Your task to perform on an android device: find which apps use the phone's location Image 0: 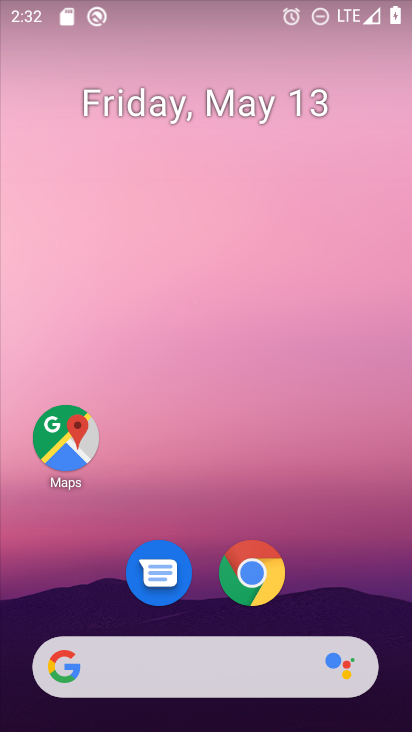
Step 0: drag from (221, 724) to (337, 10)
Your task to perform on an android device: find which apps use the phone's location Image 1: 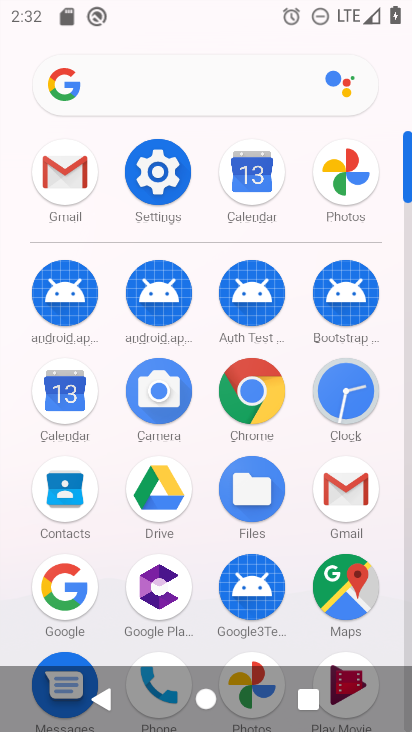
Step 1: click (181, 153)
Your task to perform on an android device: find which apps use the phone's location Image 2: 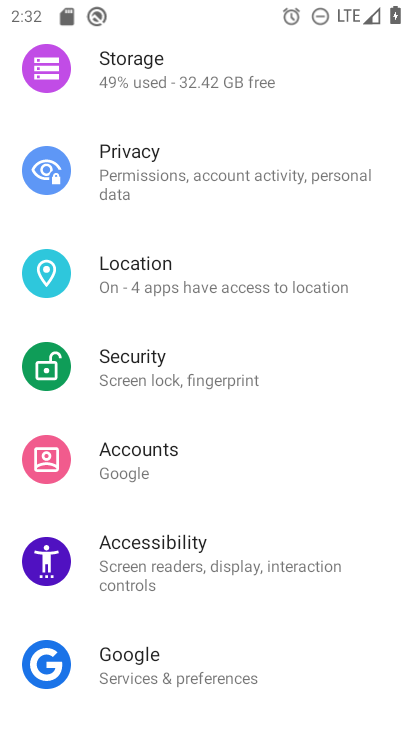
Step 2: click (267, 287)
Your task to perform on an android device: find which apps use the phone's location Image 3: 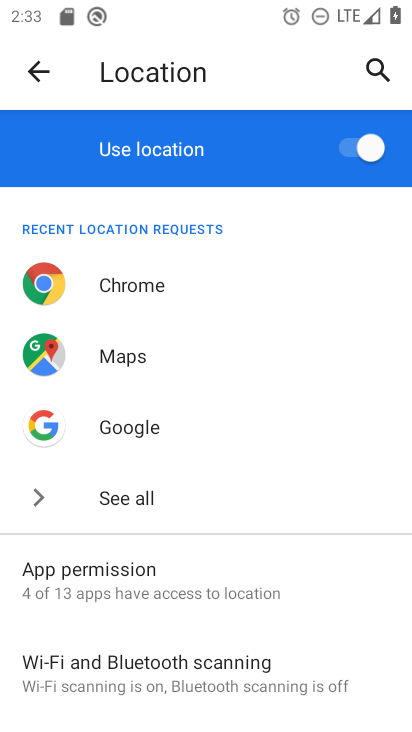
Step 3: task complete